Your task to perform on an android device: set the timer Image 0: 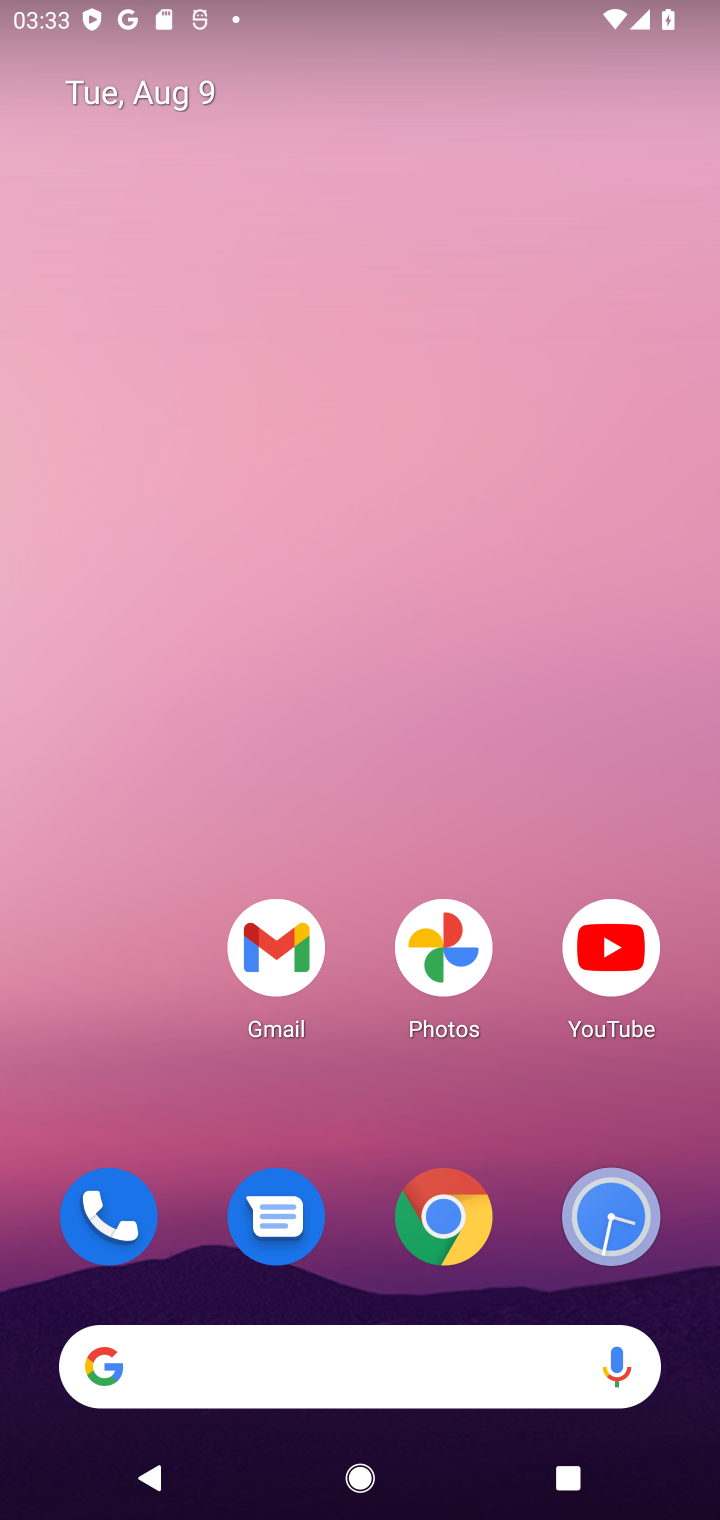
Step 0: drag from (358, 1112) to (212, 171)
Your task to perform on an android device: set the timer Image 1: 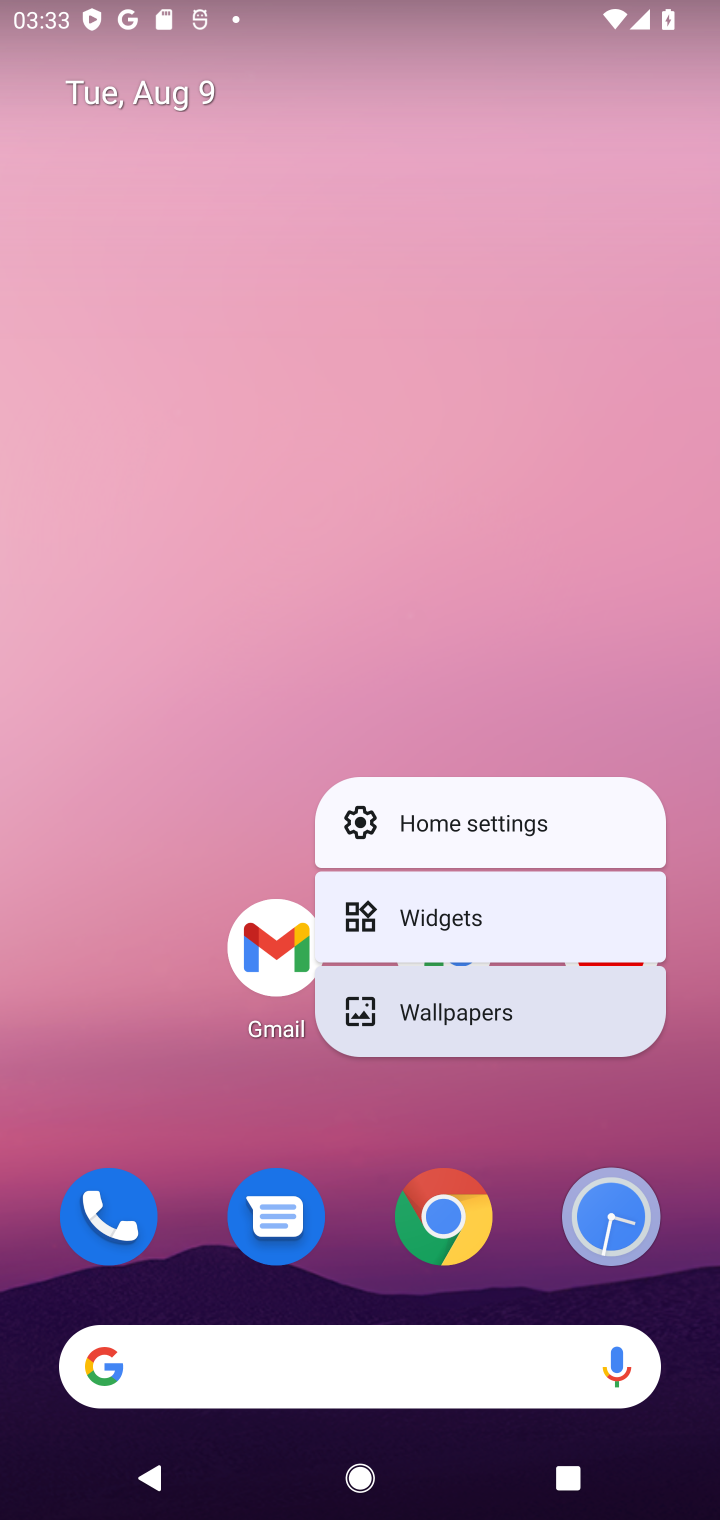
Step 1: click (60, 750)
Your task to perform on an android device: set the timer Image 2: 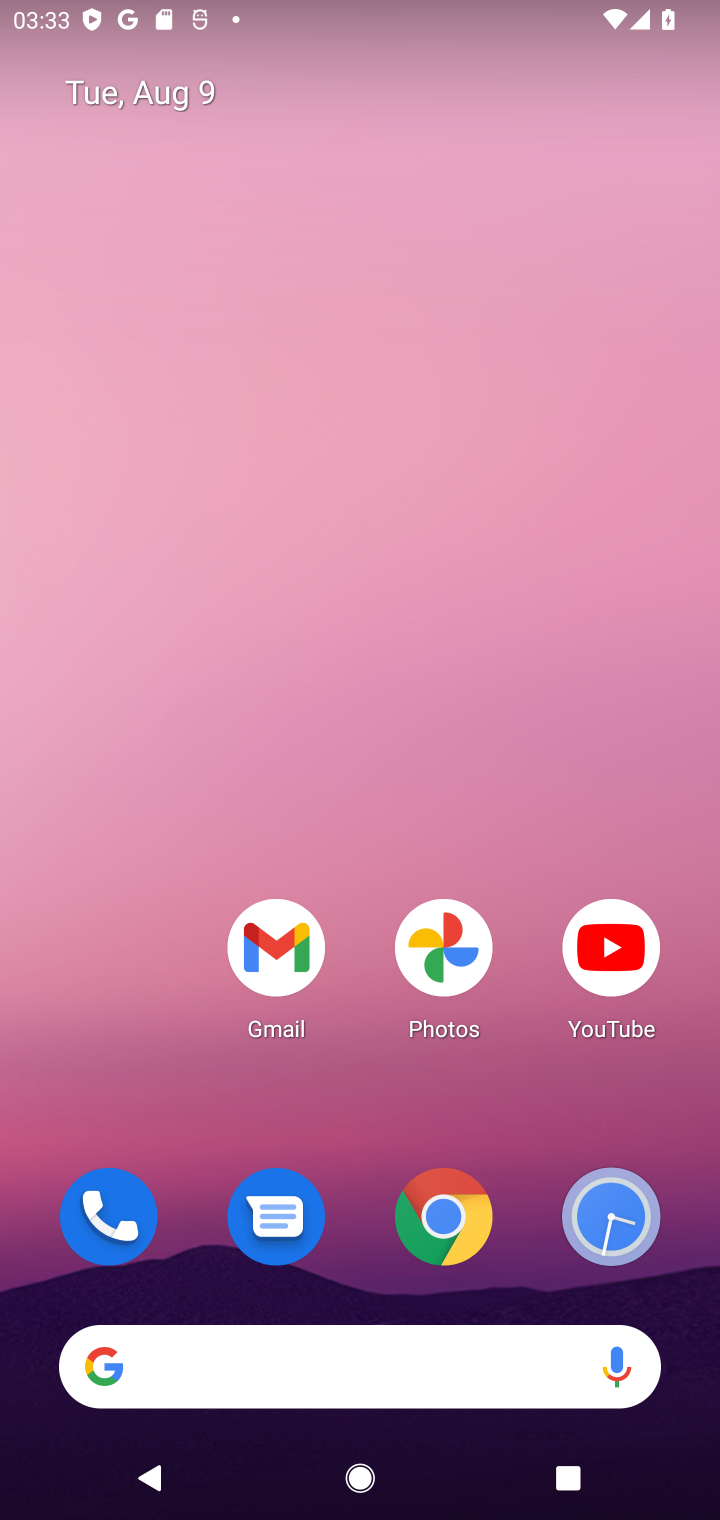
Step 2: click (602, 1234)
Your task to perform on an android device: set the timer Image 3: 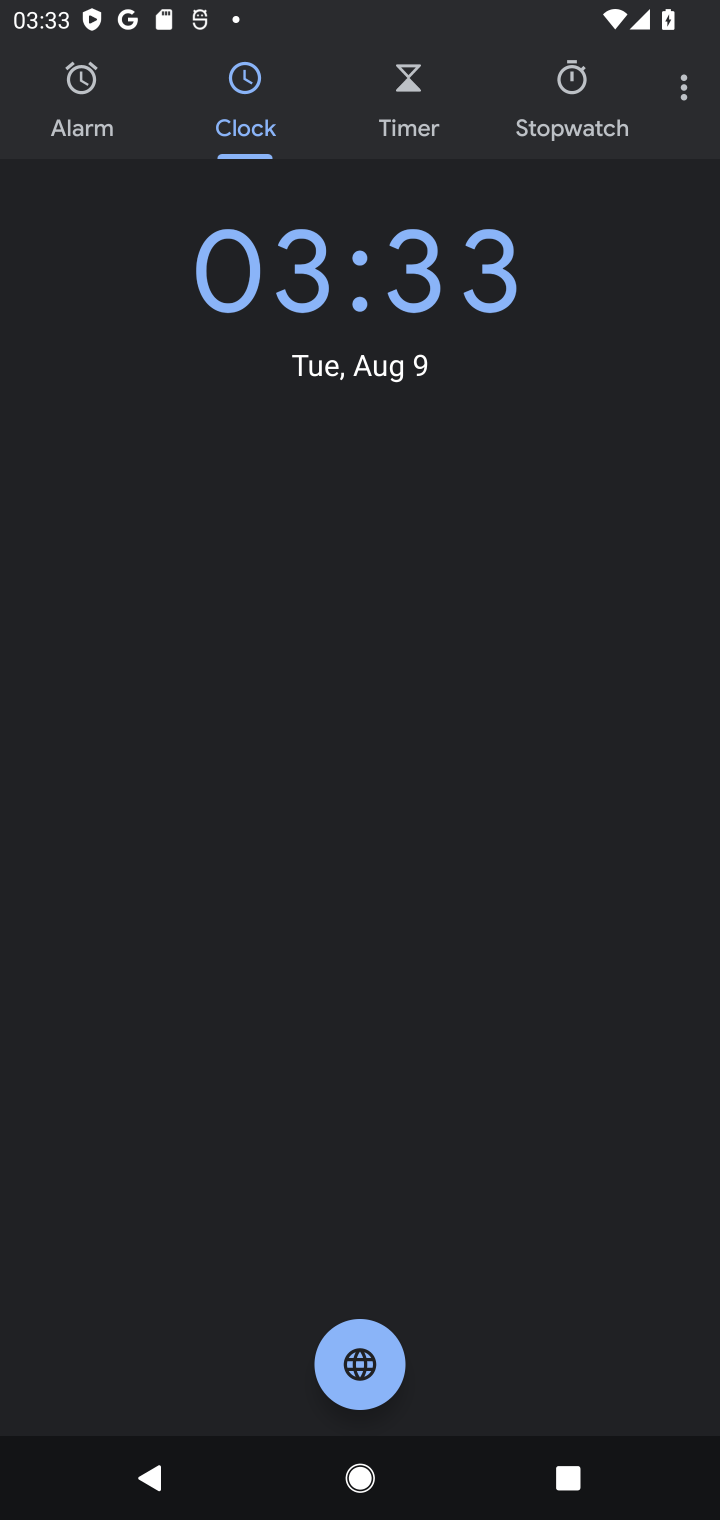
Step 3: click (435, 106)
Your task to perform on an android device: set the timer Image 4: 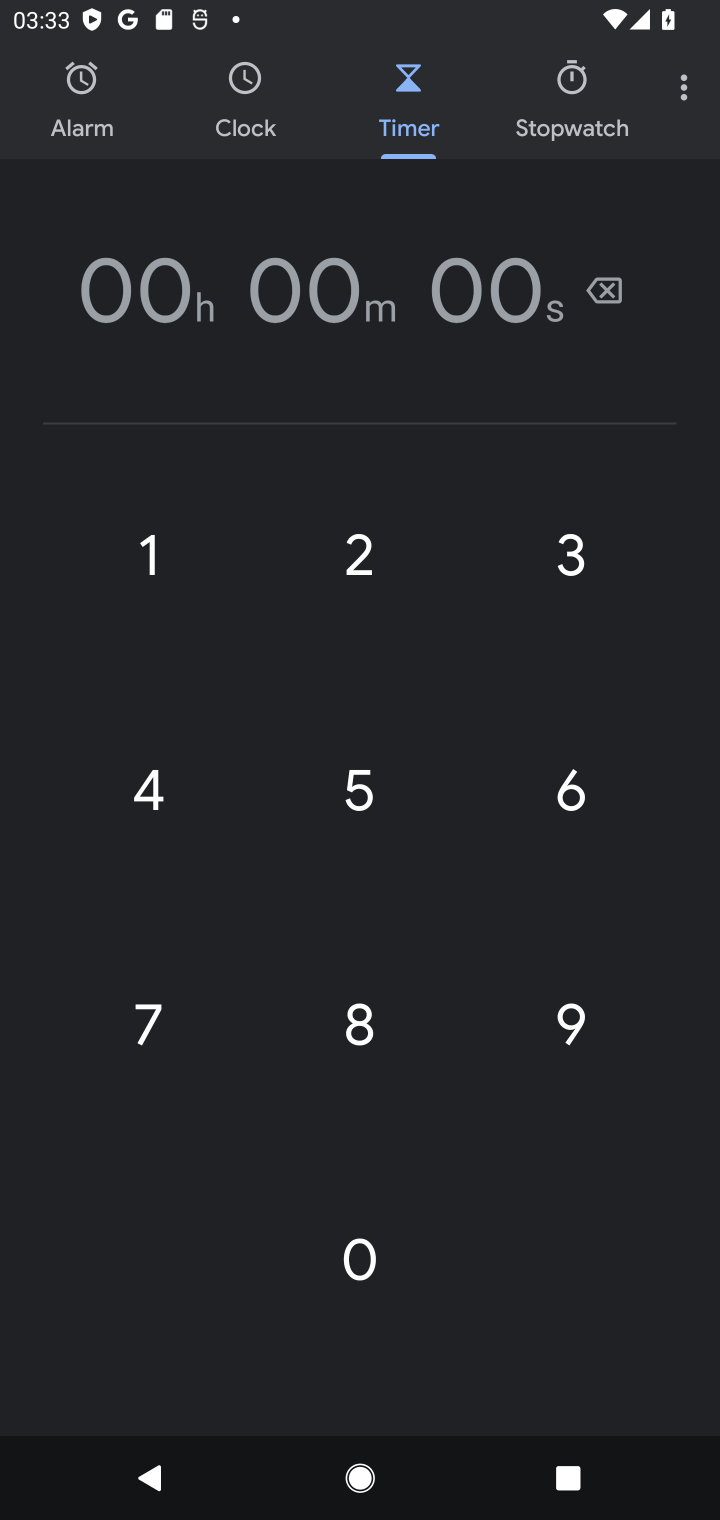
Step 4: click (389, 689)
Your task to perform on an android device: set the timer Image 5: 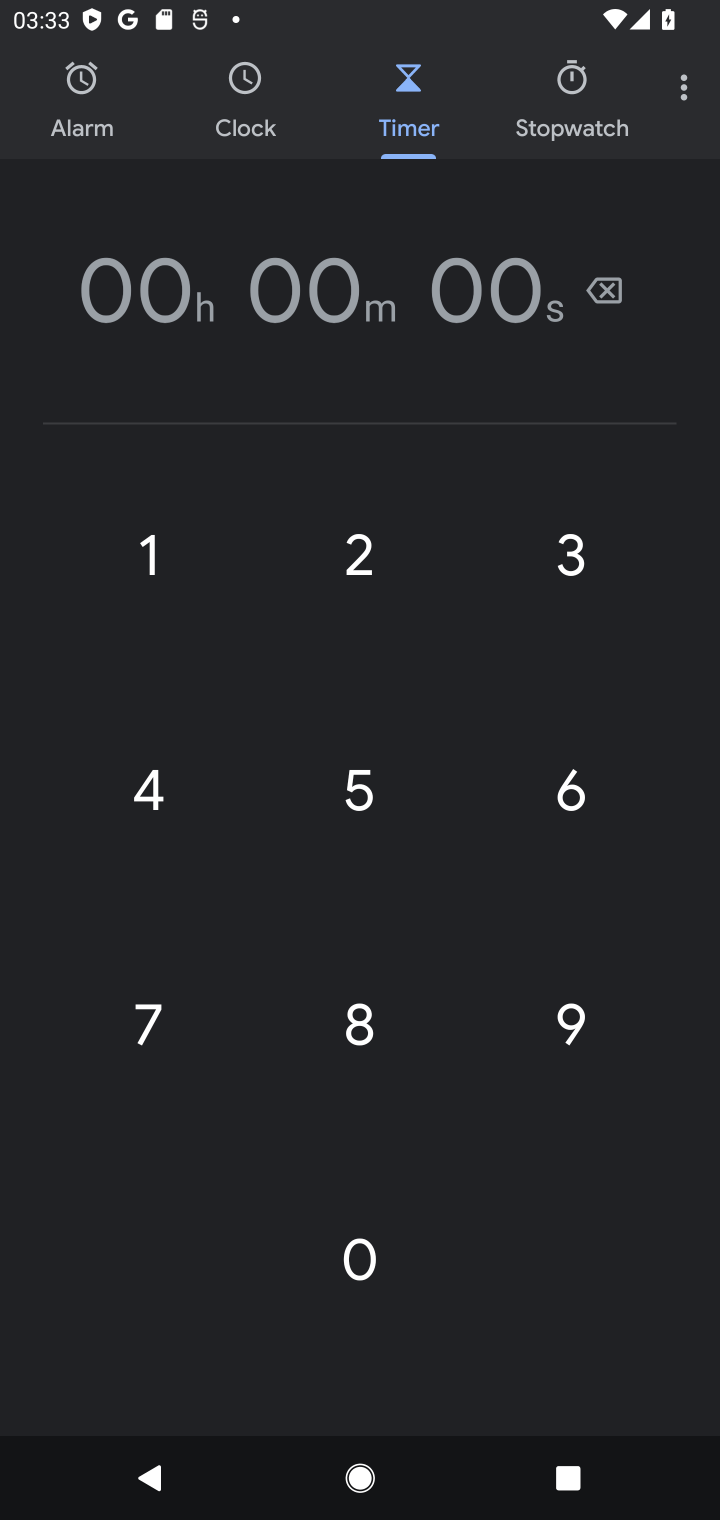
Step 5: click (389, 689)
Your task to perform on an android device: set the timer Image 6: 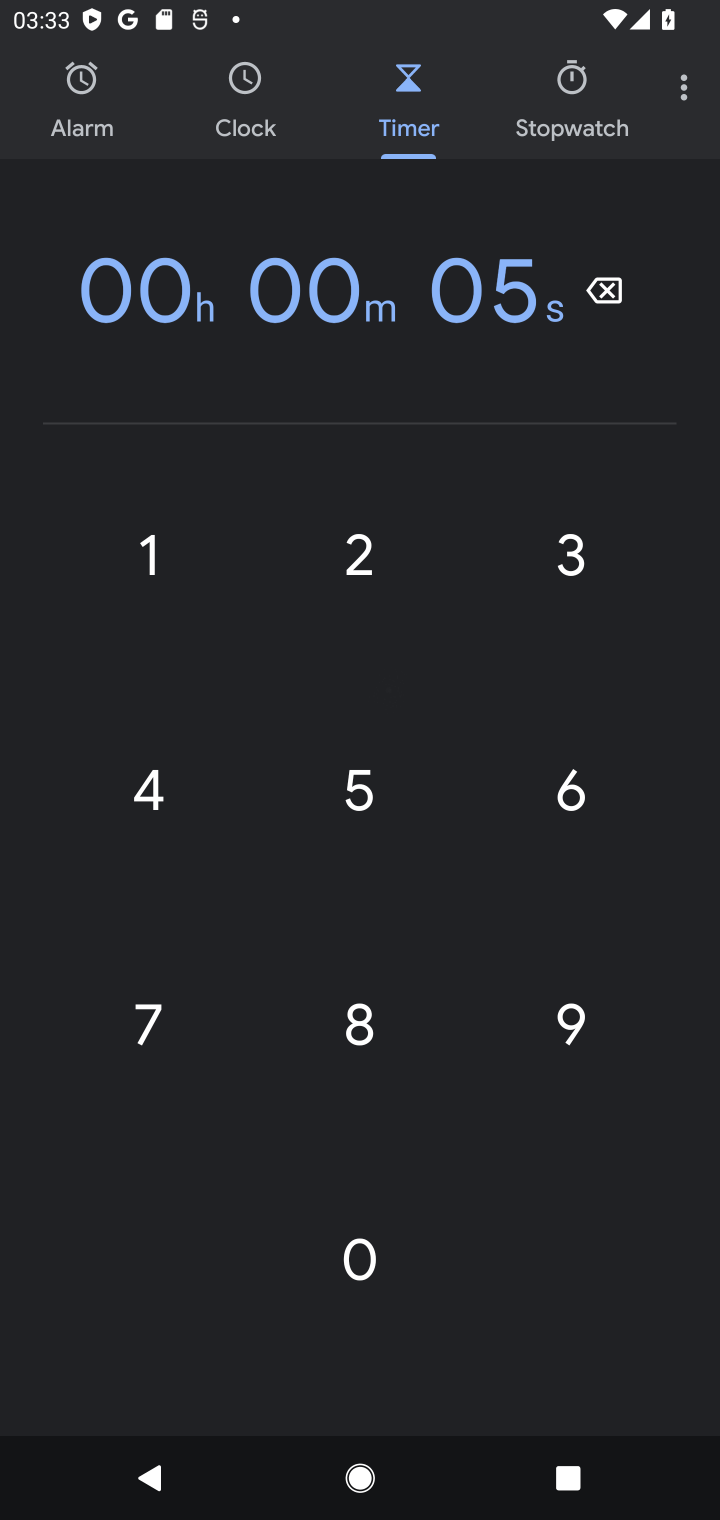
Step 6: click (389, 689)
Your task to perform on an android device: set the timer Image 7: 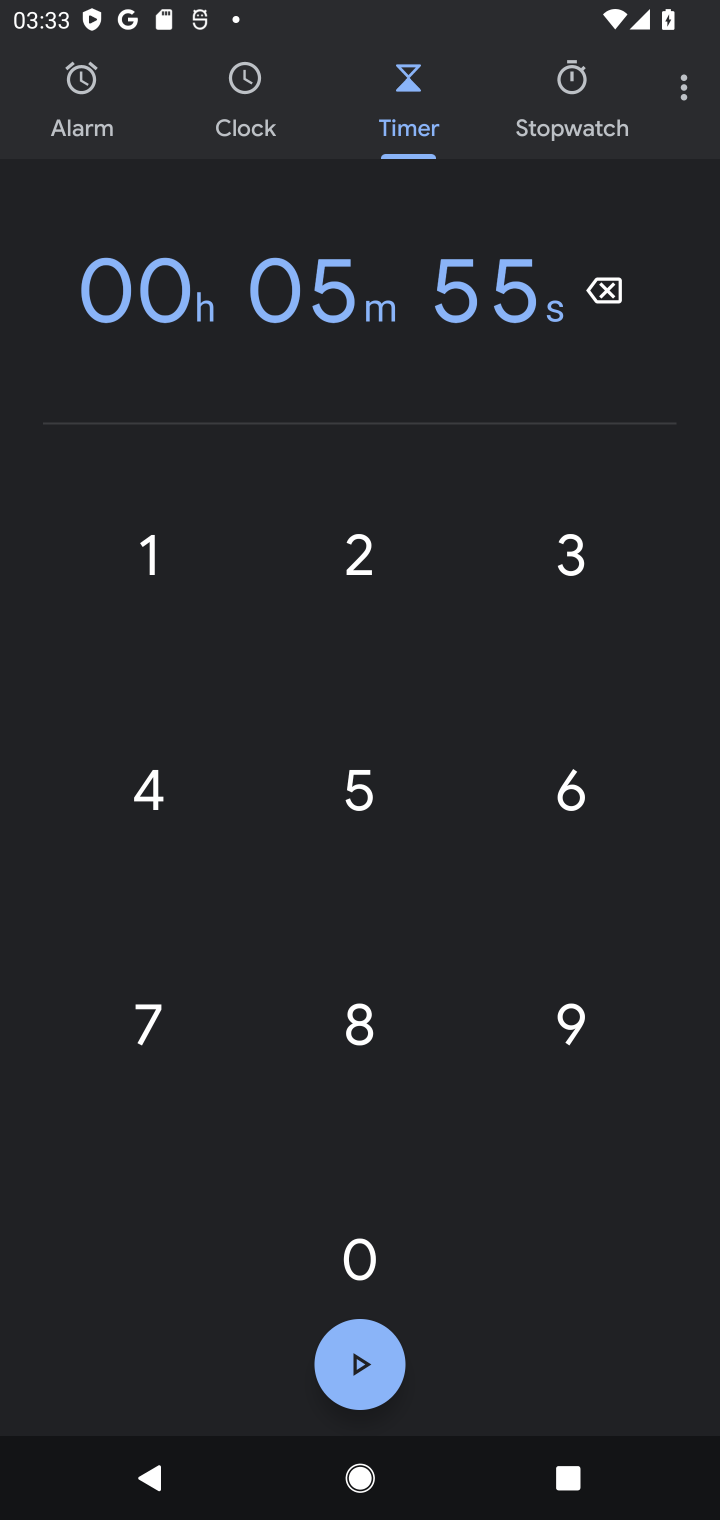
Step 7: click (389, 689)
Your task to perform on an android device: set the timer Image 8: 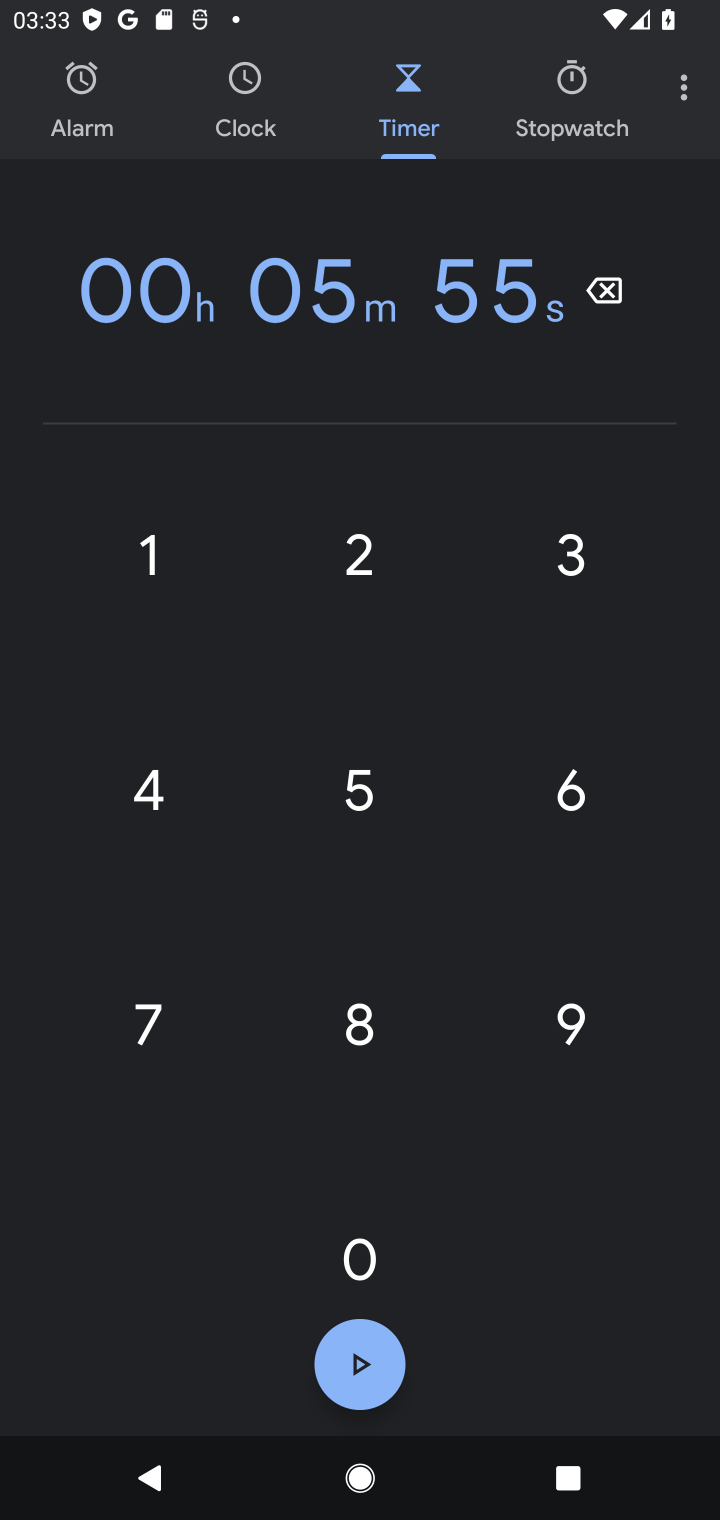
Step 8: click (389, 689)
Your task to perform on an android device: set the timer Image 9: 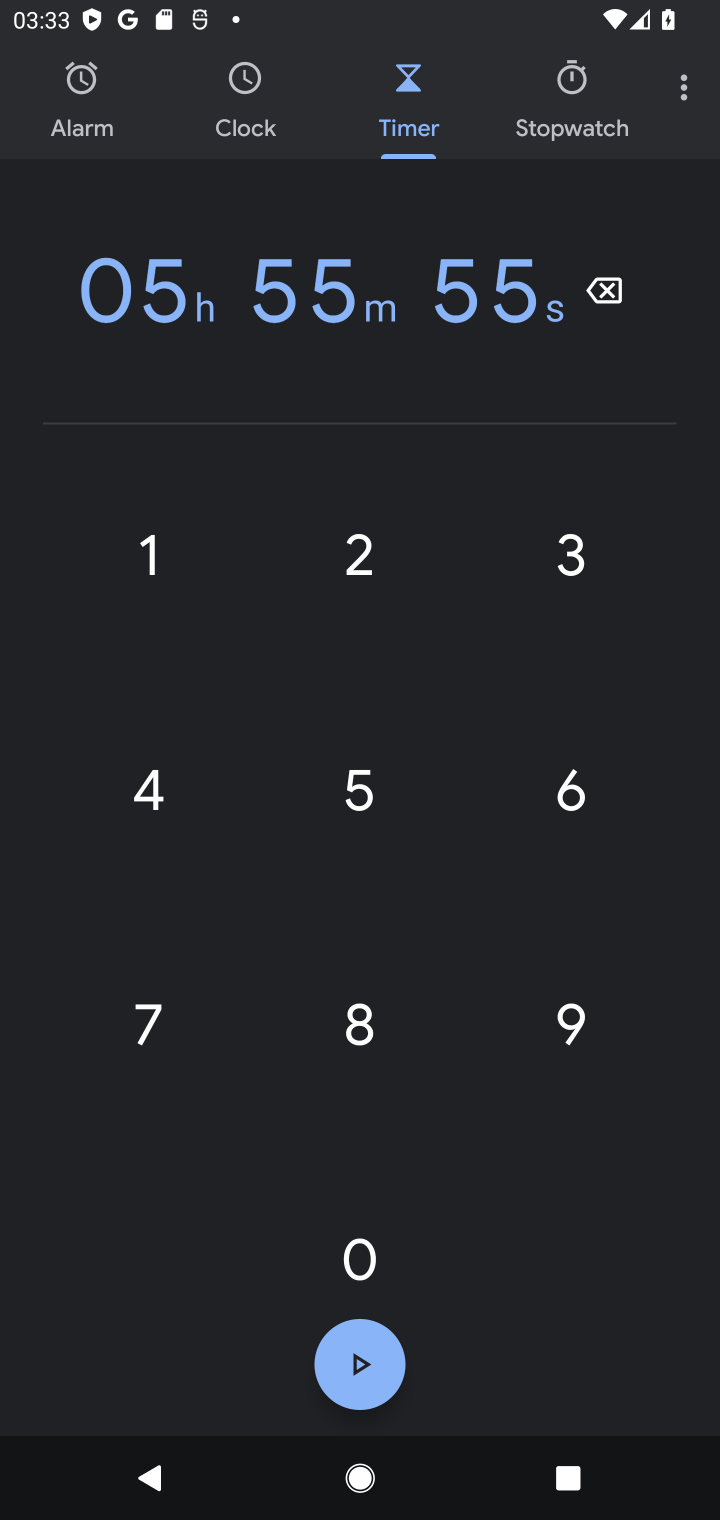
Step 9: click (363, 1358)
Your task to perform on an android device: set the timer Image 10: 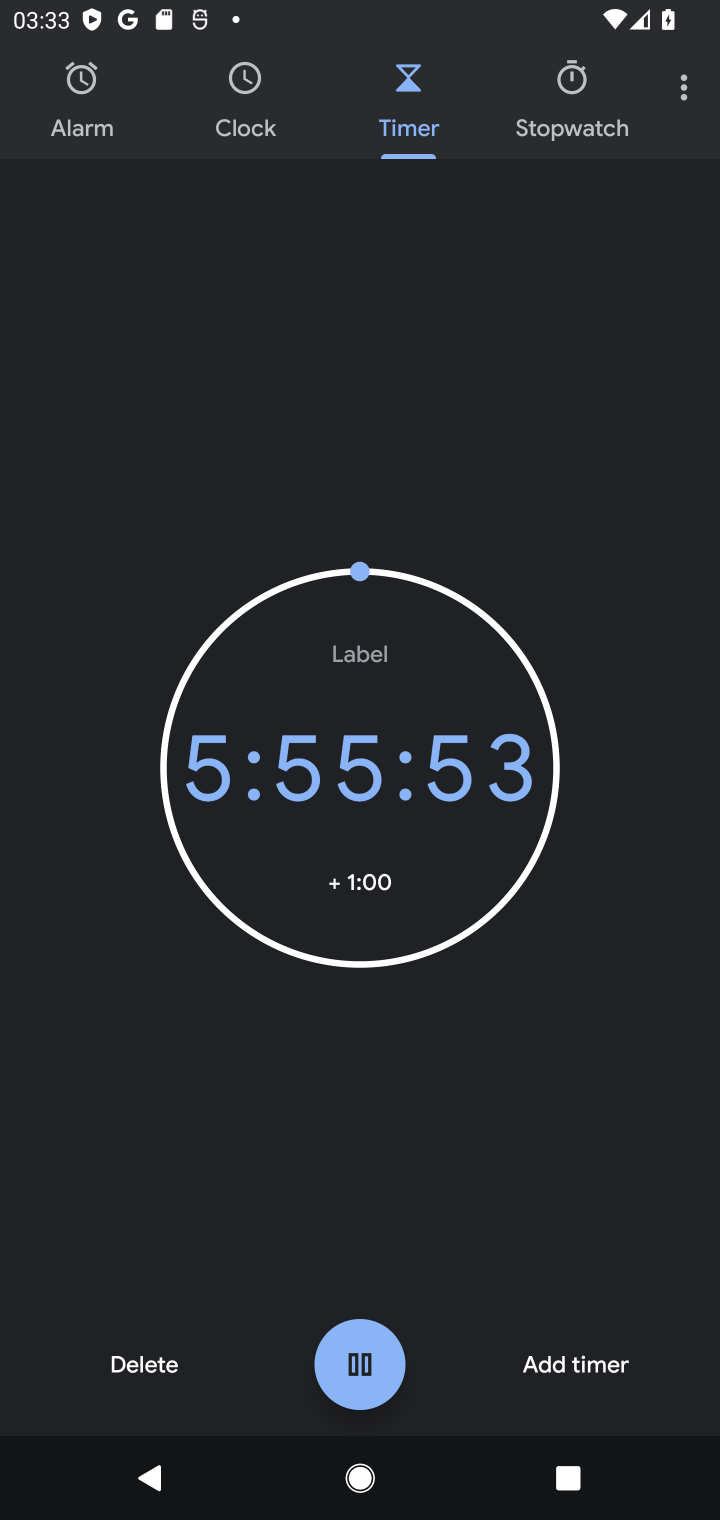
Step 10: task complete